Your task to perform on an android device: Check the news Image 0: 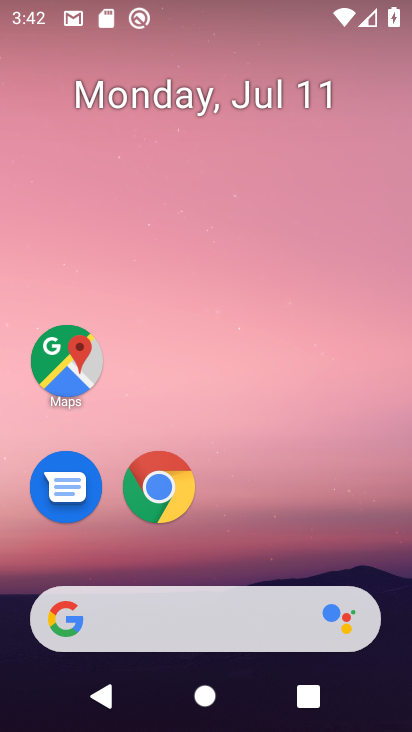
Step 0: click (395, 459)
Your task to perform on an android device: Check the news Image 1: 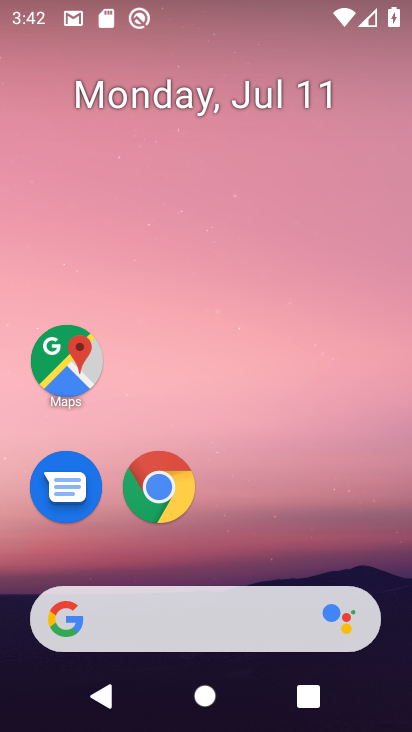
Step 1: click (139, 616)
Your task to perform on an android device: Check the news Image 2: 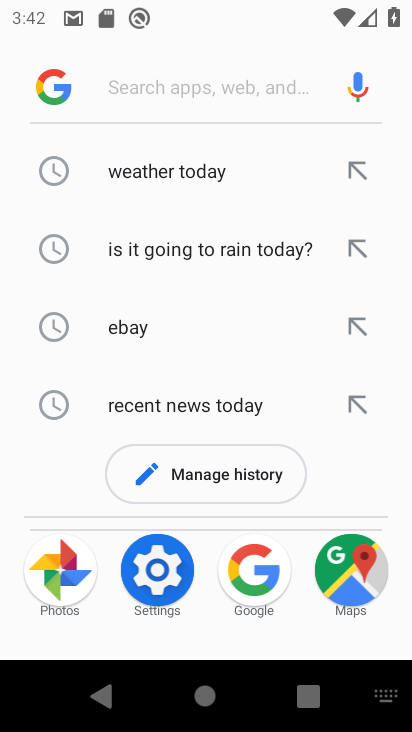
Step 2: type "news"
Your task to perform on an android device: Check the news Image 3: 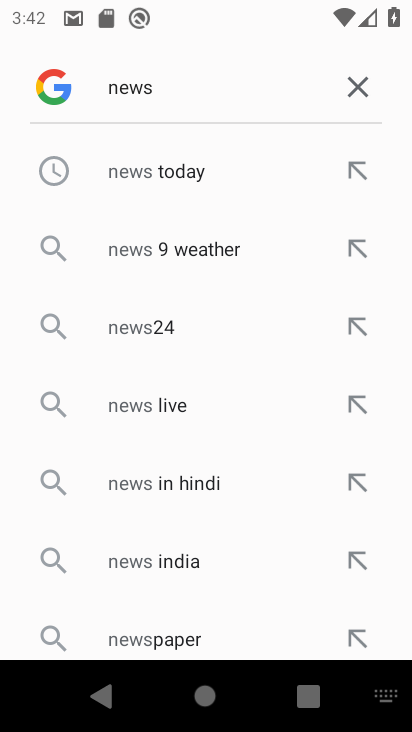
Step 3: click (194, 184)
Your task to perform on an android device: Check the news Image 4: 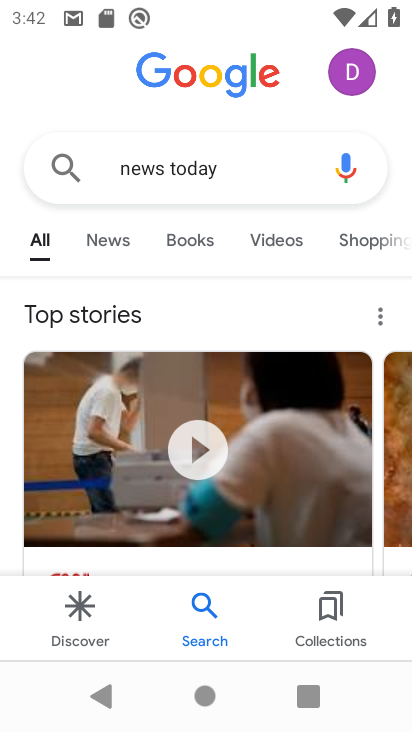
Step 4: task complete